Your task to perform on an android device: turn off sleep mode Image 0: 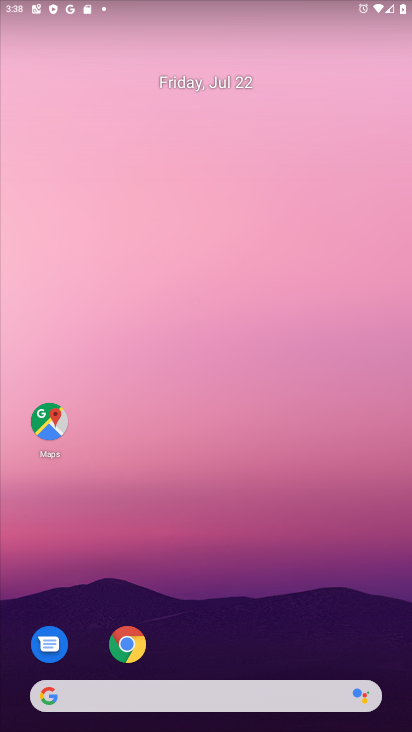
Step 0: drag from (240, 612) to (198, 168)
Your task to perform on an android device: turn off sleep mode Image 1: 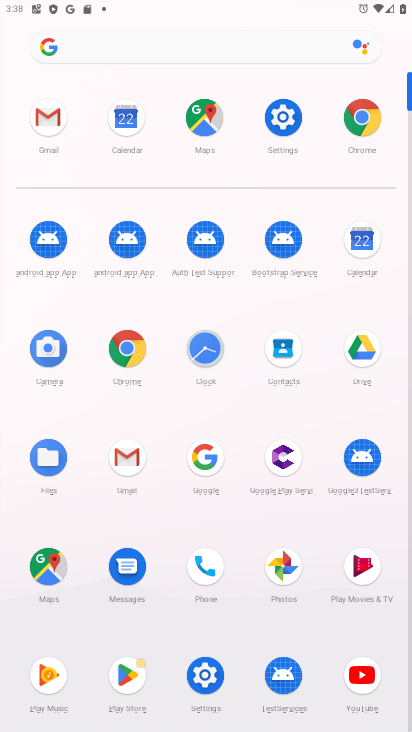
Step 1: click (281, 112)
Your task to perform on an android device: turn off sleep mode Image 2: 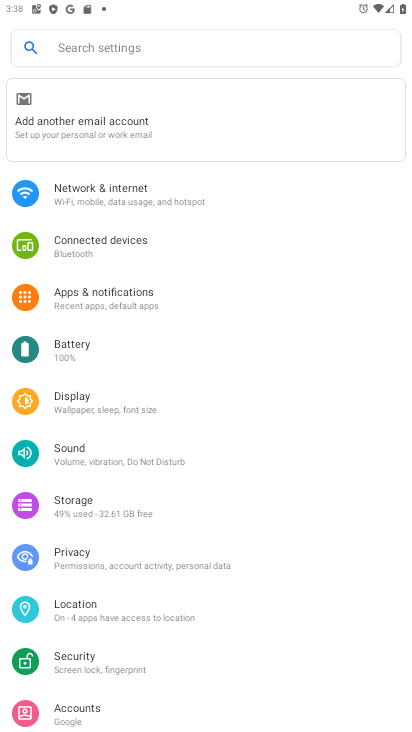
Step 2: task complete